Your task to perform on an android device: find photos in the google photos app Image 0: 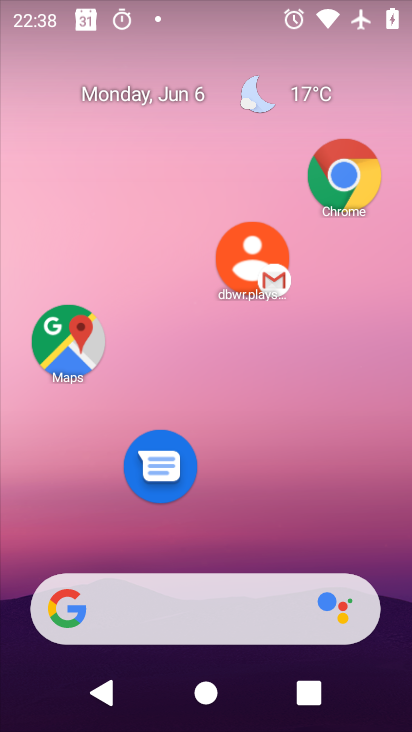
Step 0: drag from (198, 515) to (203, 21)
Your task to perform on an android device: find photos in the google photos app Image 1: 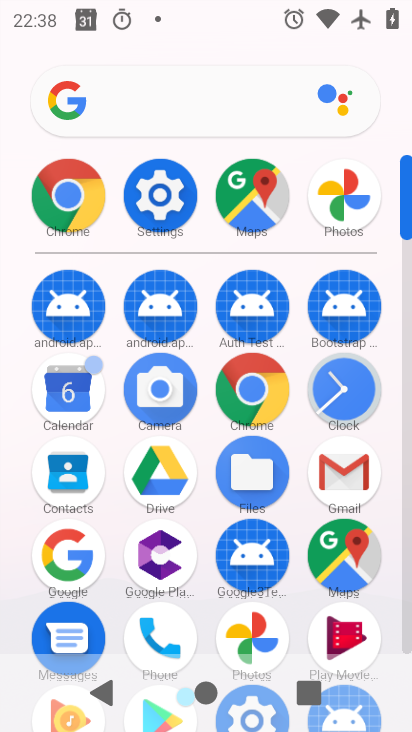
Step 1: click (235, 603)
Your task to perform on an android device: find photos in the google photos app Image 2: 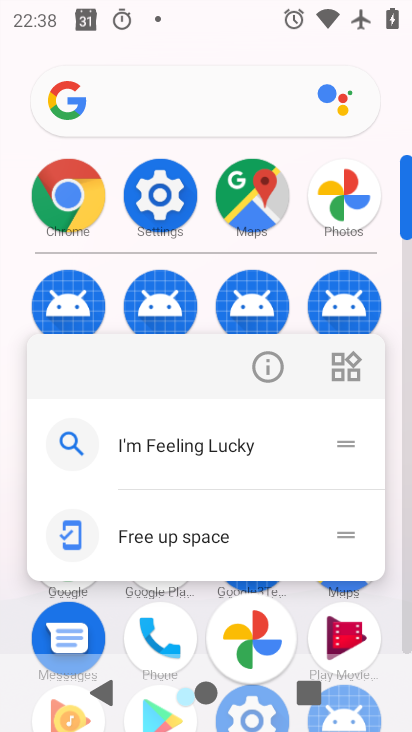
Step 2: click (257, 621)
Your task to perform on an android device: find photos in the google photos app Image 3: 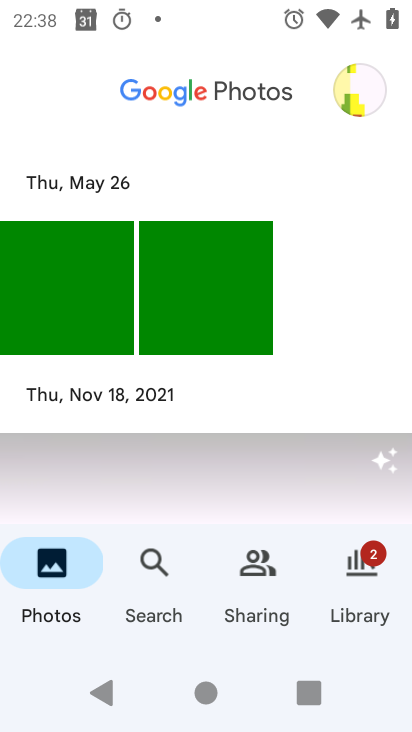
Step 3: click (88, 316)
Your task to perform on an android device: find photos in the google photos app Image 4: 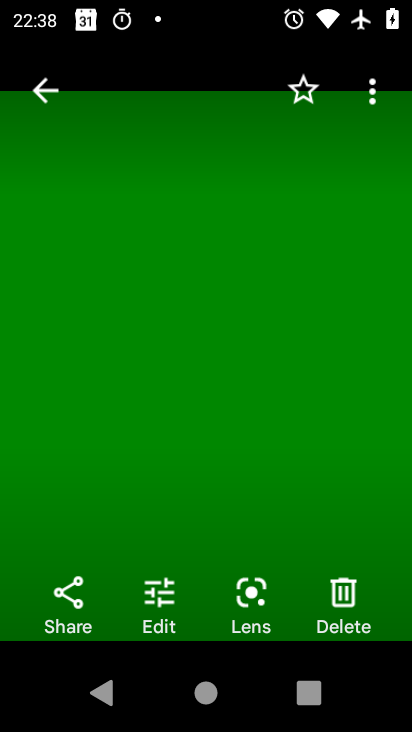
Step 4: task complete